Your task to perform on an android device: Clear all items from cart on target. Search for razer thresher on target, select the first entry, and add it to the cart. Image 0: 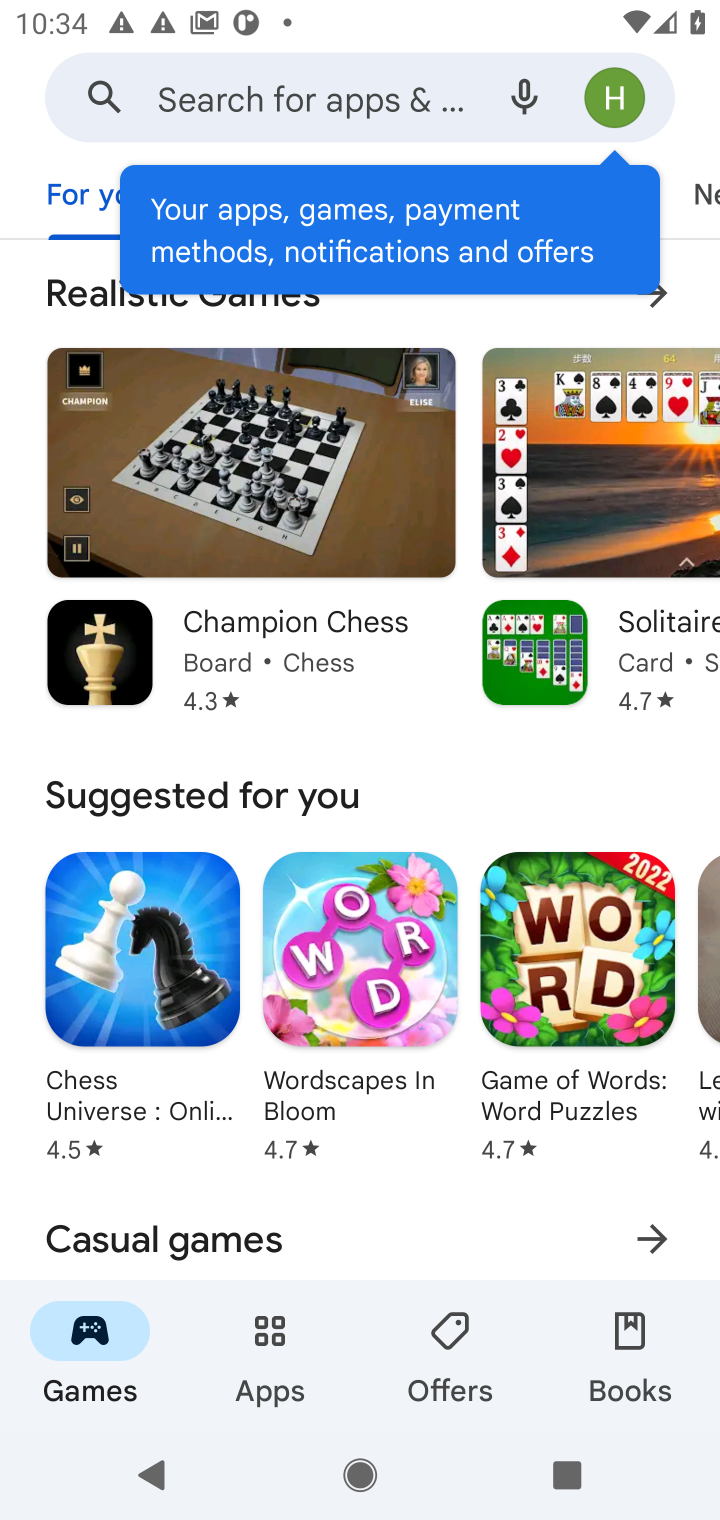
Step 0: press home button
Your task to perform on an android device: Clear all items from cart on target. Search for razer thresher on target, select the first entry, and add it to the cart. Image 1: 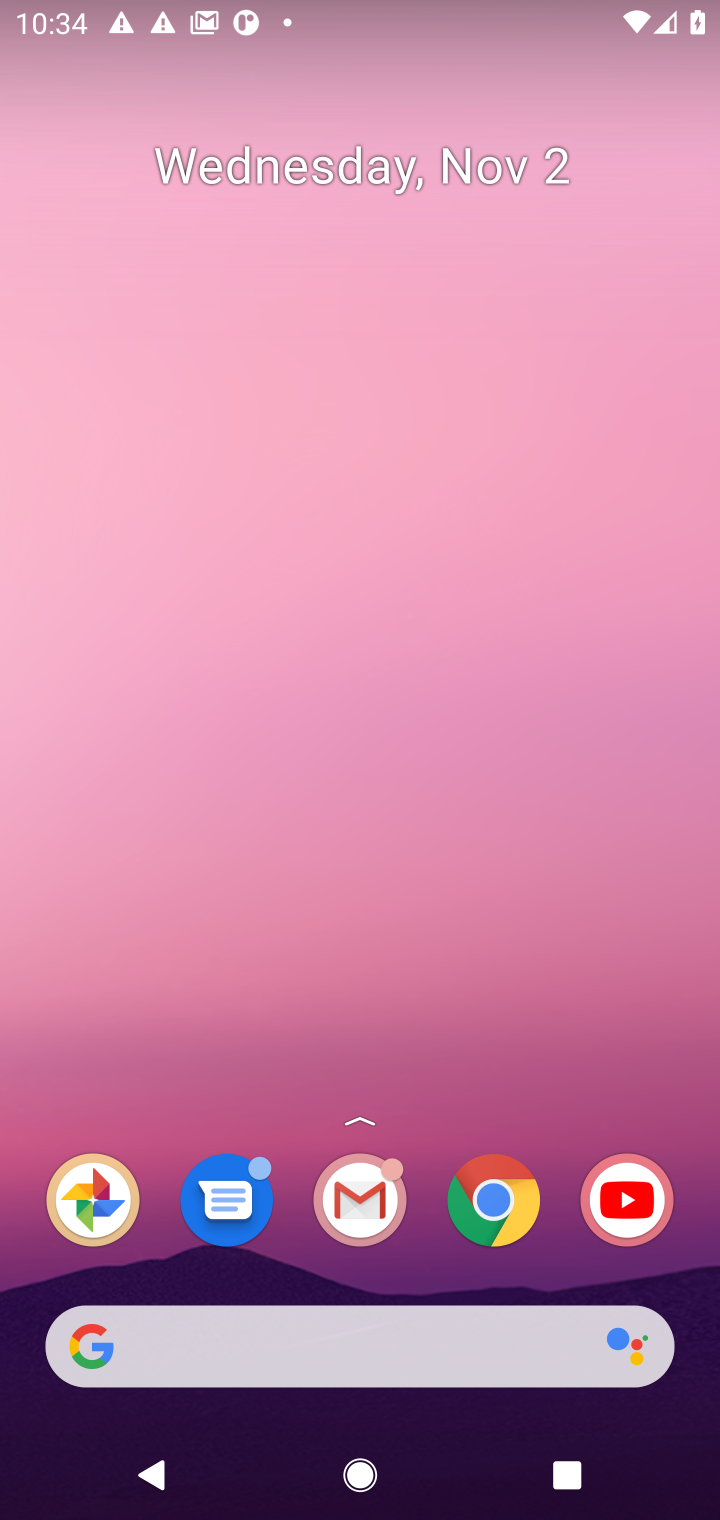
Step 1: click (491, 1191)
Your task to perform on an android device: Clear all items from cart on target. Search for razer thresher on target, select the first entry, and add it to the cart. Image 2: 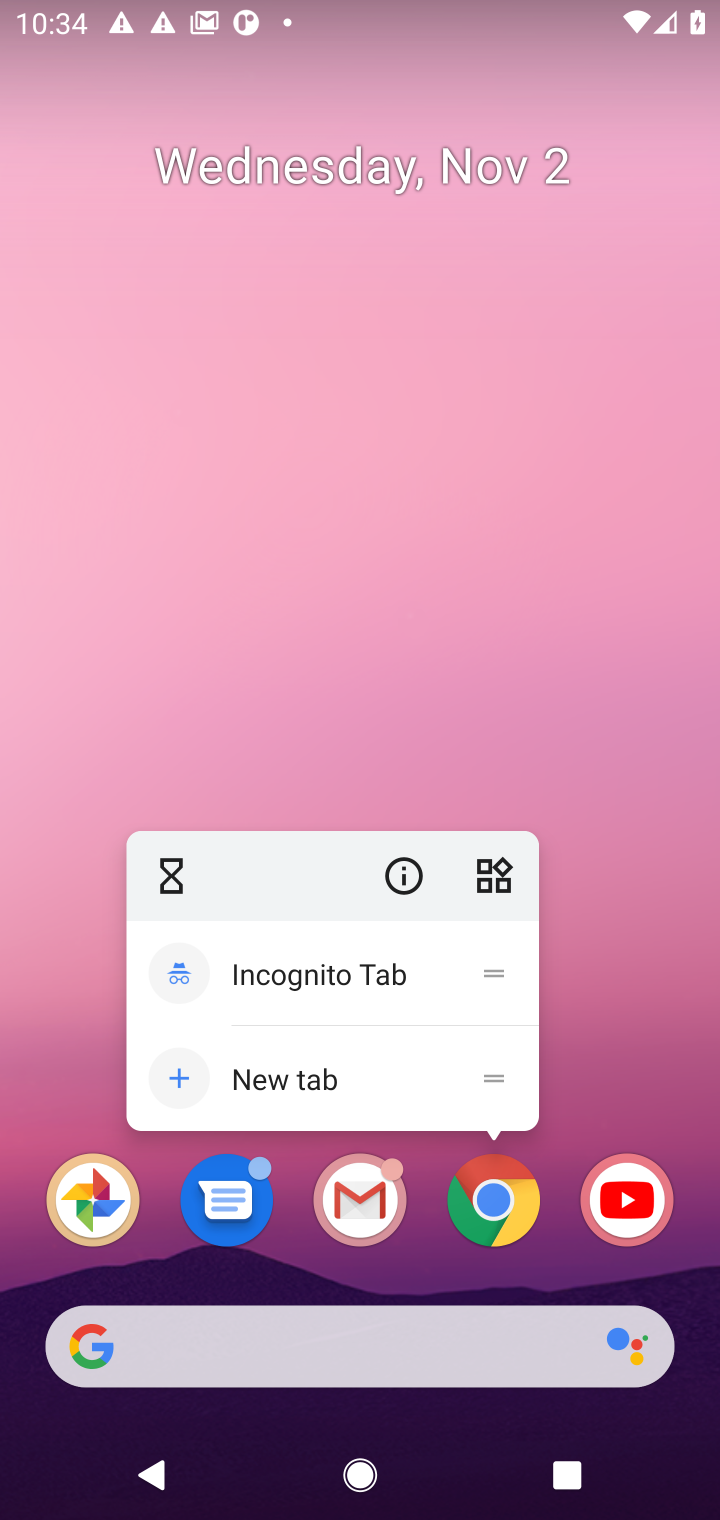
Step 2: click (491, 1191)
Your task to perform on an android device: Clear all items from cart on target. Search for razer thresher on target, select the first entry, and add it to the cart. Image 3: 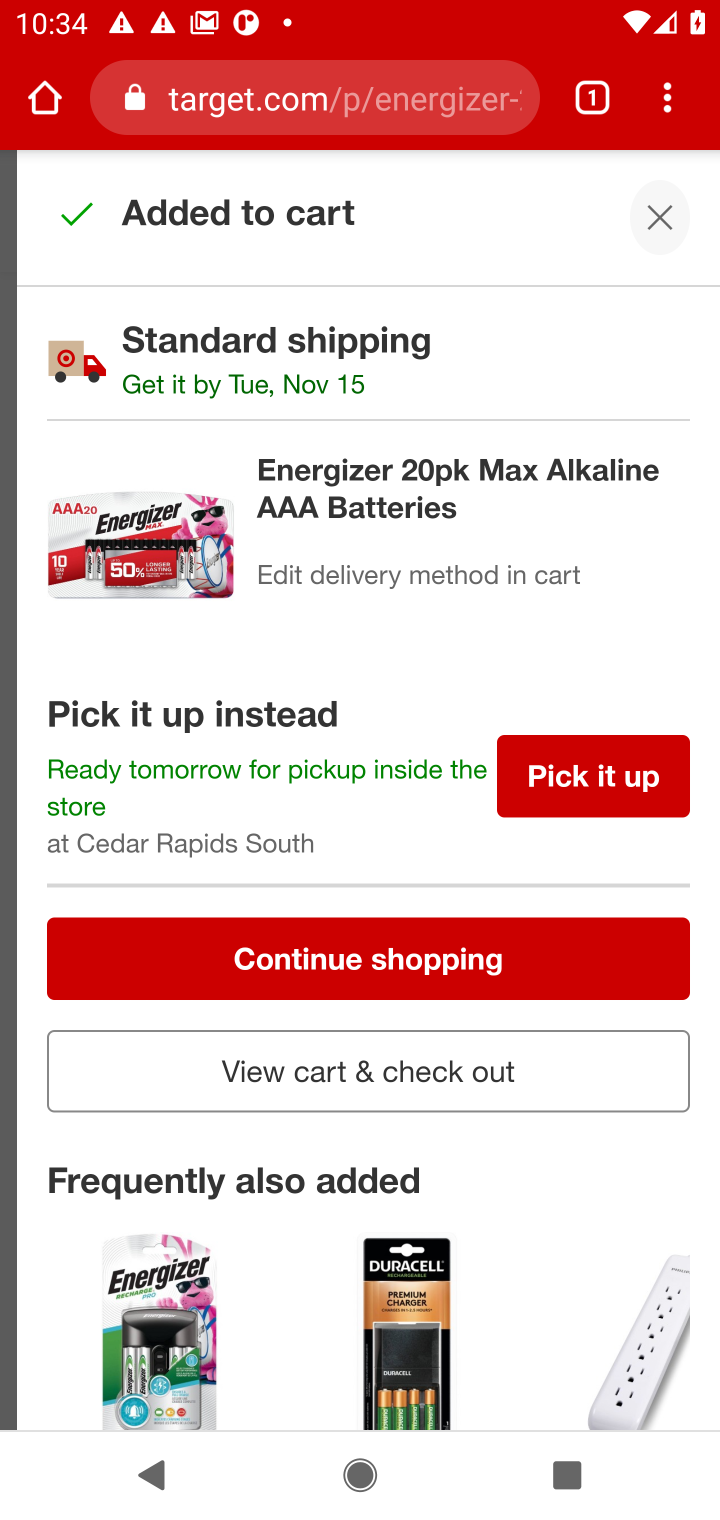
Step 3: click (664, 210)
Your task to perform on an android device: Clear all items from cart on target. Search for razer thresher on target, select the first entry, and add it to the cart. Image 4: 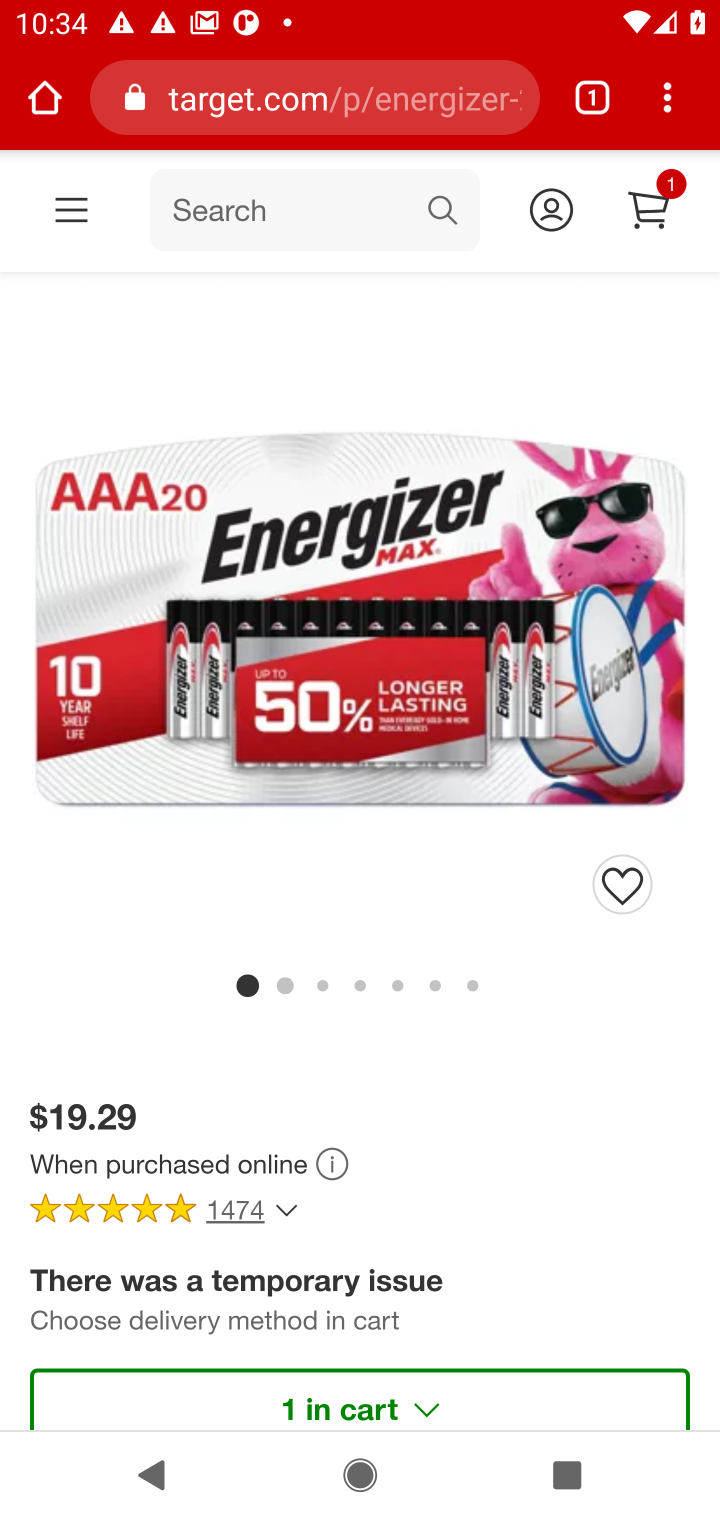
Step 4: click (450, 205)
Your task to perform on an android device: Clear all items from cart on target. Search for razer thresher on target, select the first entry, and add it to the cart. Image 5: 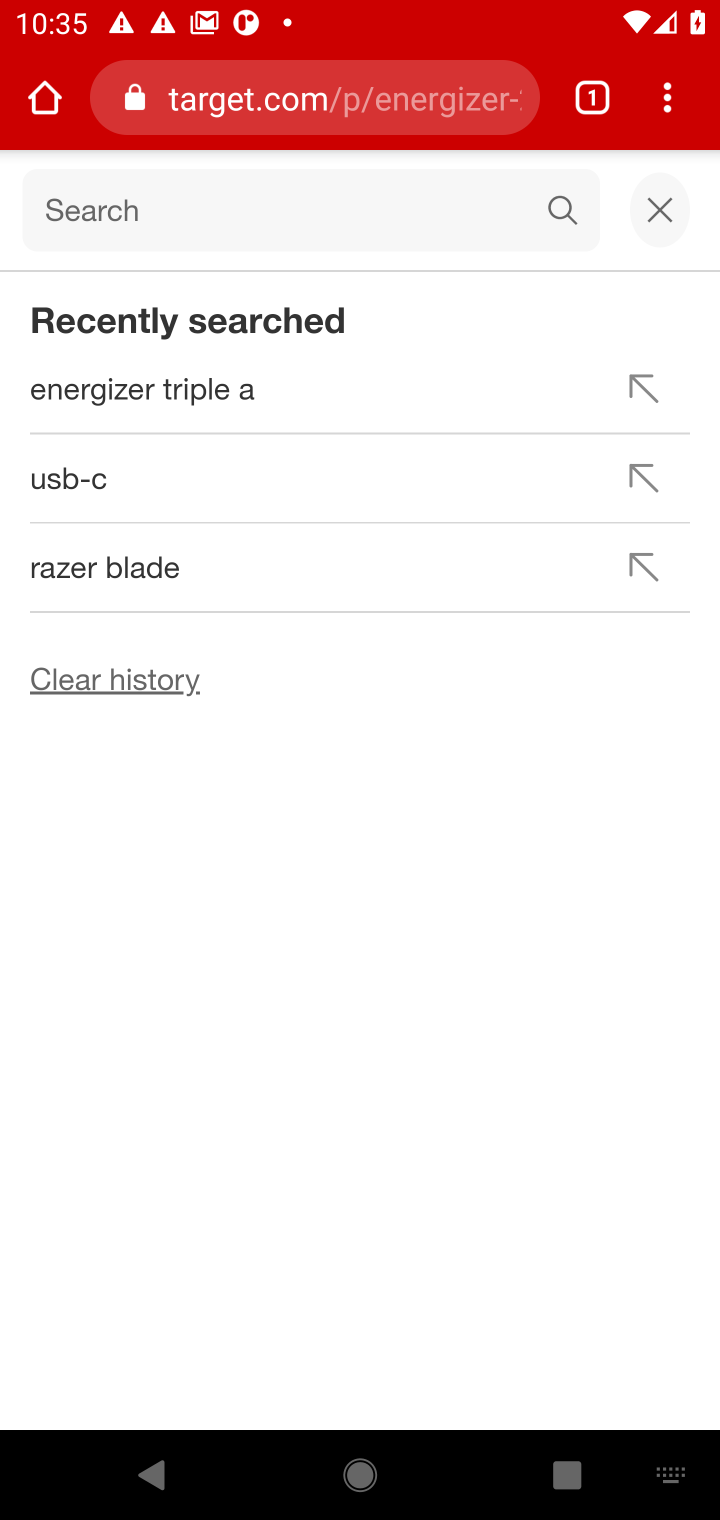
Step 5: type "razer thresher"
Your task to perform on an android device: Clear all items from cart on target. Search for razer thresher on target, select the first entry, and add it to the cart. Image 6: 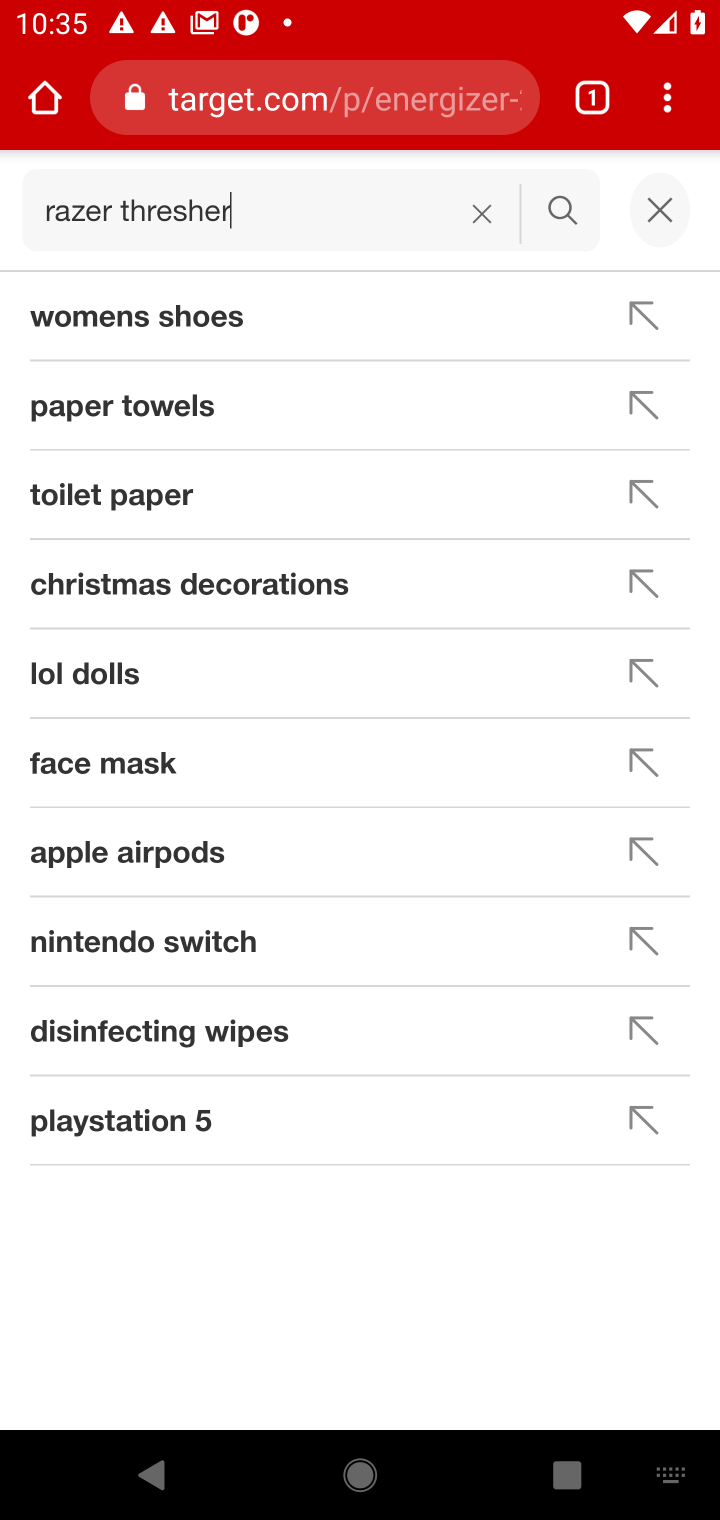
Step 6: press enter
Your task to perform on an android device: Clear all items from cart on target. Search for razer thresher on target, select the first entry, and add it to the cart. Image 7: 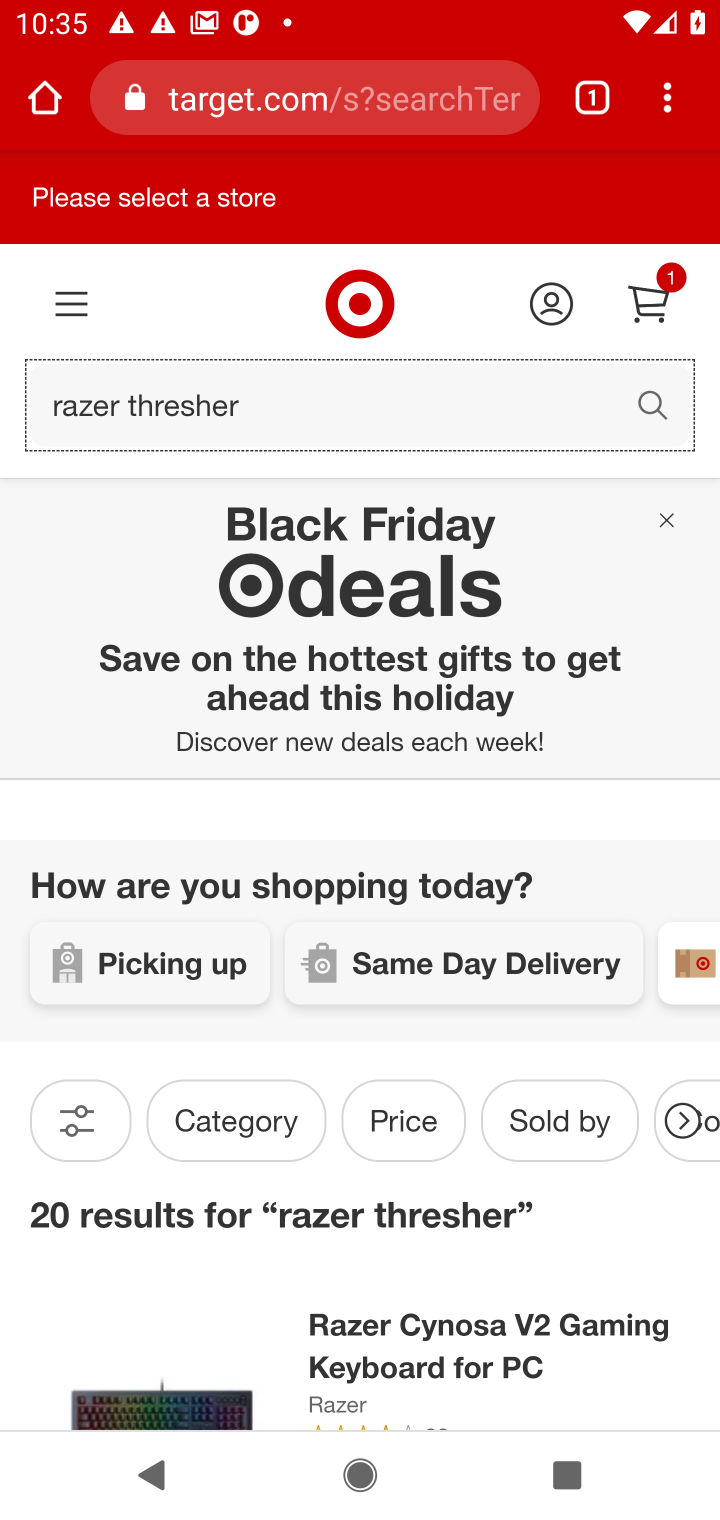
Step 7: drag from (586, 1037) to (651, 263)
Your task to perform on an android device: Clear all items from cart on target. Search for razer thresher on target, select the first entry, and add it to the cart. Image 8: 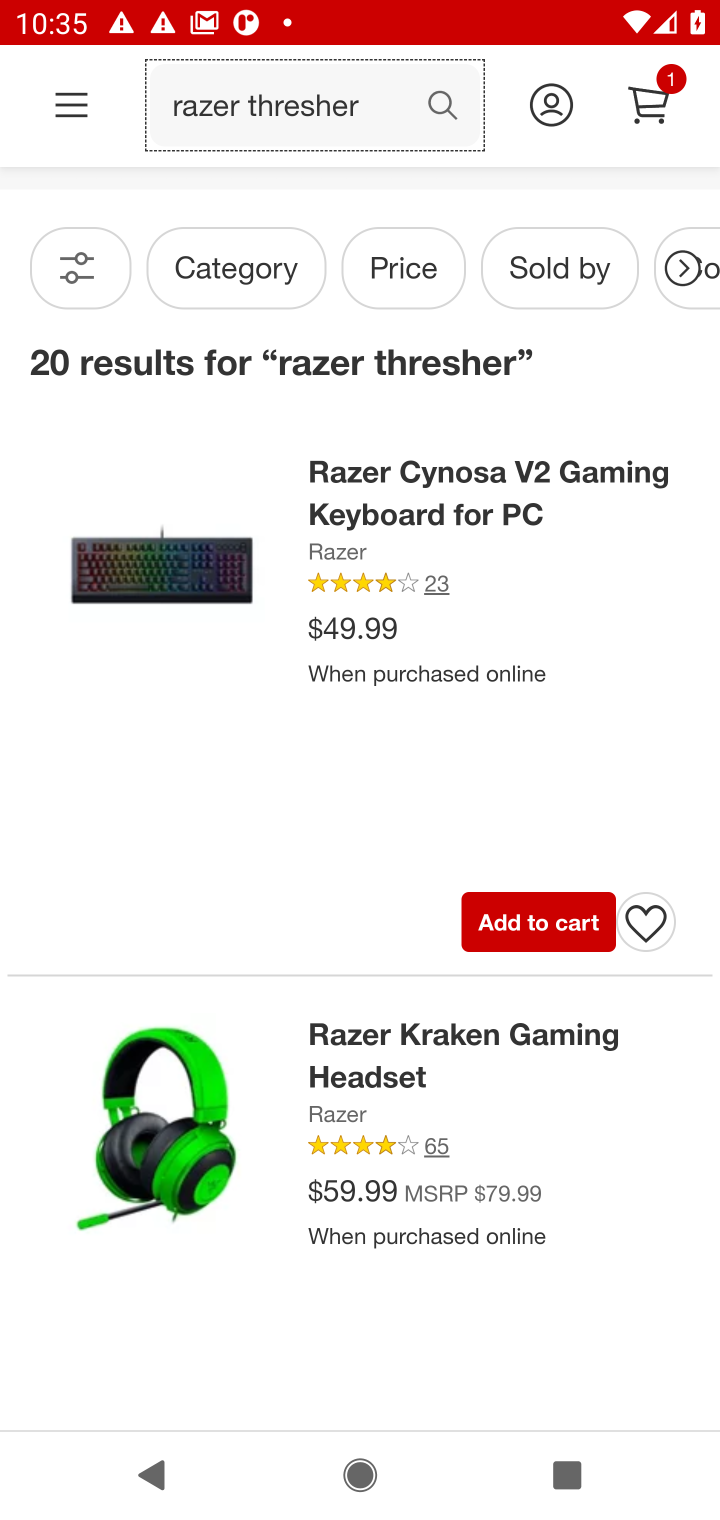
Step 8: click (192, 1102)
Your task to perform on an android device: Clear all items from cart on target. Search for razer thresher on target, select the first entry, and add it to the cart. Image 9: 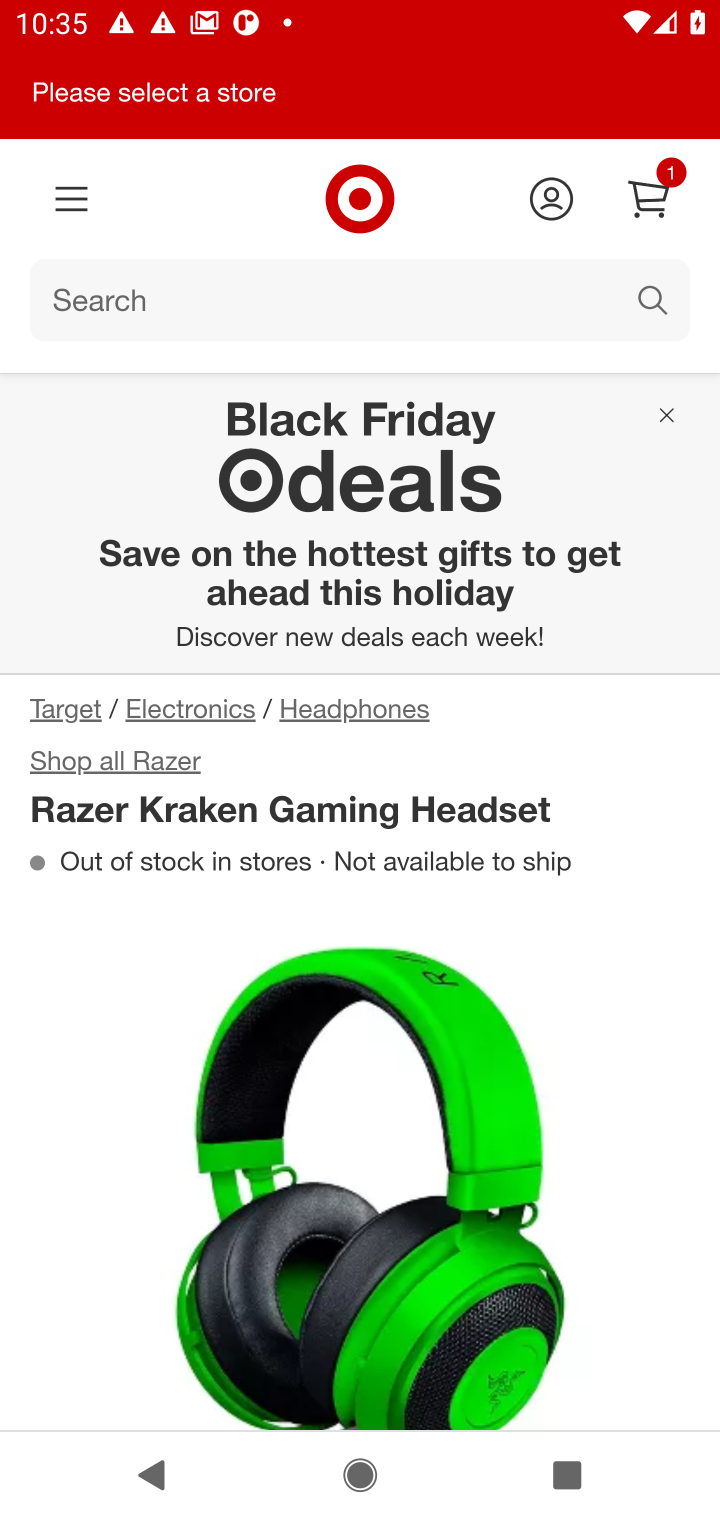
Step 9: task complete